Your task to perform on an android device: show emergency info Image 0: 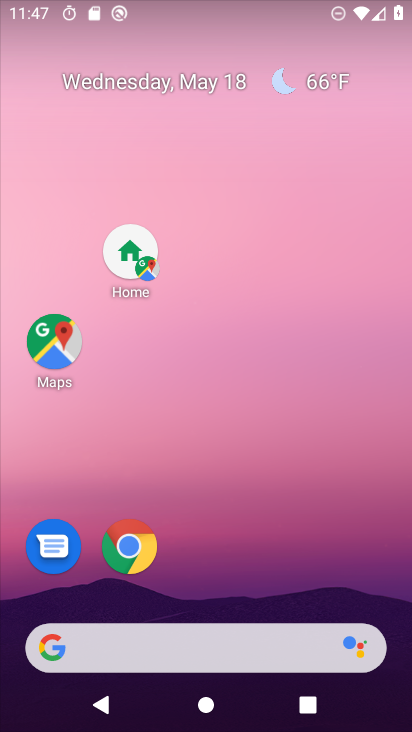
Step 0: drag from (203, 618) to (238, 191)
Your task to perform on an android device: show emergency info Image 1: 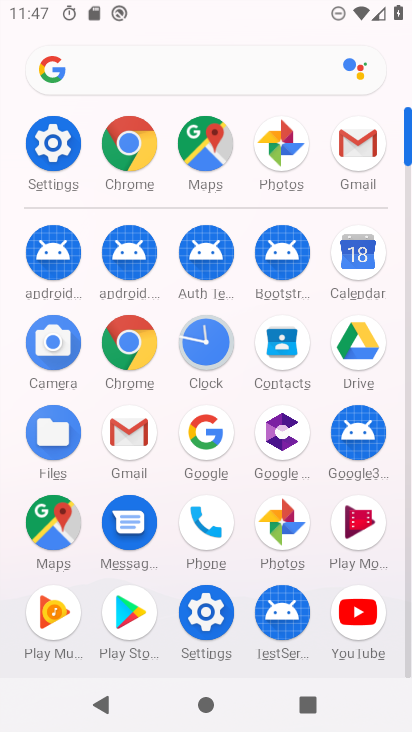
Step 1: click (219, 601)
Your task to perform on an android device: show emergency info Image 2: 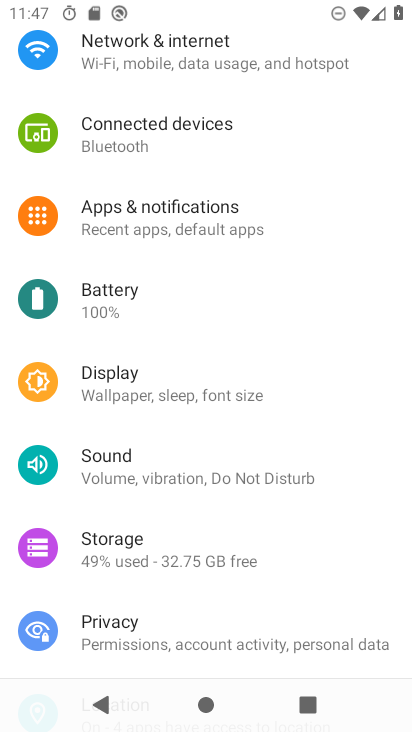
Step 2: drag from (128, 611) to (224, 140)
Your task to perform on an android device: show emergency info Image 3: 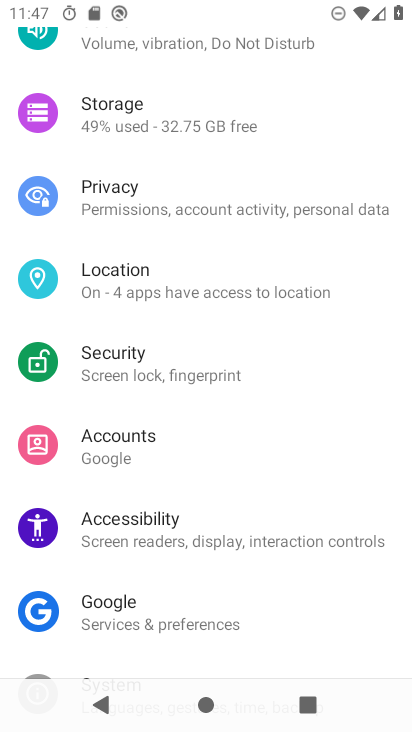
Step 3: drag from (77, 668) to (209, 181)
Your task to perform on an android device: show emergency info Image 4: 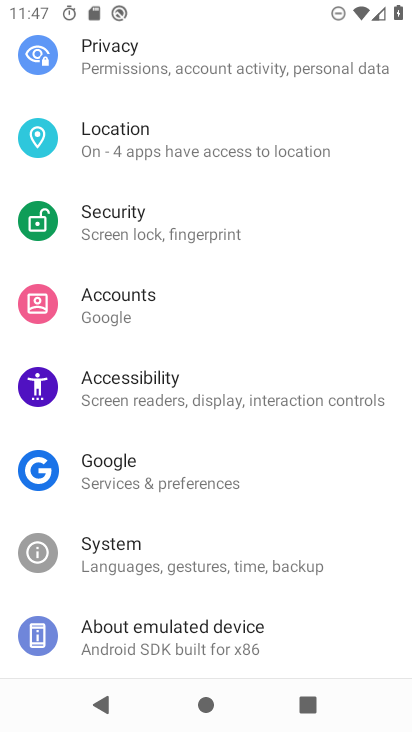
Step 4: click (155, 649)
Your task to perform on an android device: show emergency info Image 5: 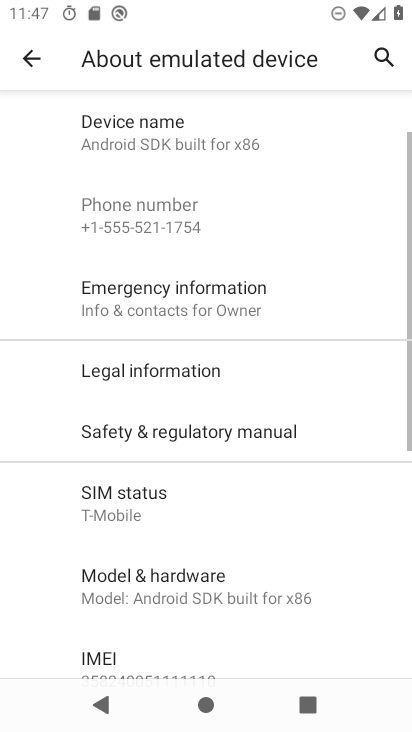
Step 5: click (218, 289)
Your task to perform on an android device: show emergency info Image 6: 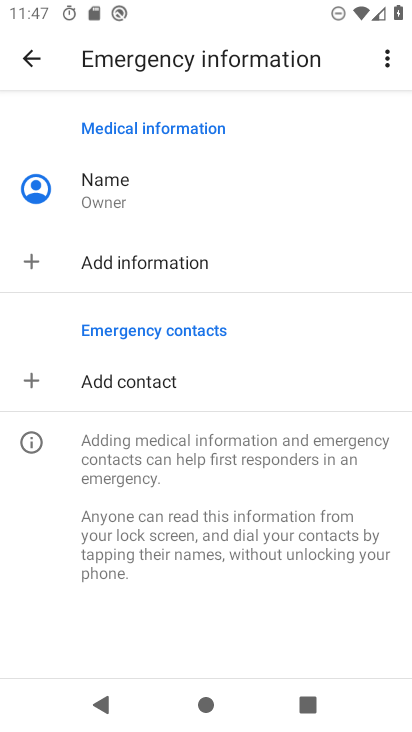
Step 6: task complete